Your task to perform on an android device: Search for vegetarian restaurants on Maps Image 0: 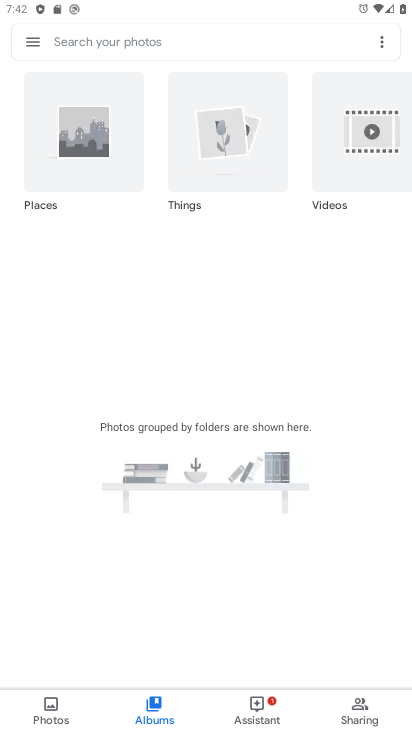
Step 0: press home button
Your task to perform on an android device: Search for vegetarian restaurants on Maps Image 1: 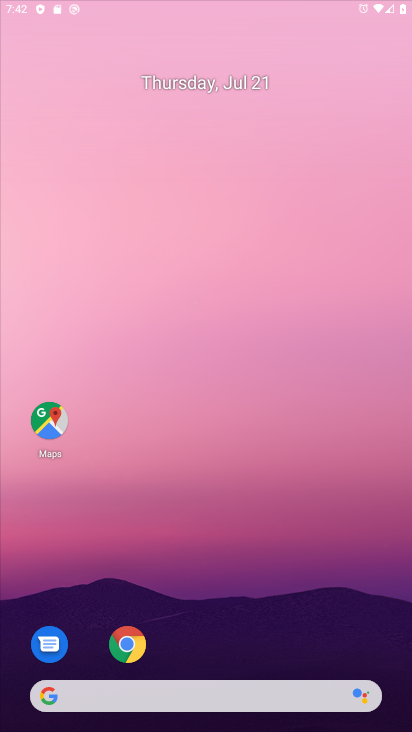
Step 1: drag from (210, 679) to (209, 361)
Your task to perform on an android device: Search for vegetarian restaurants on Maps Image 2: 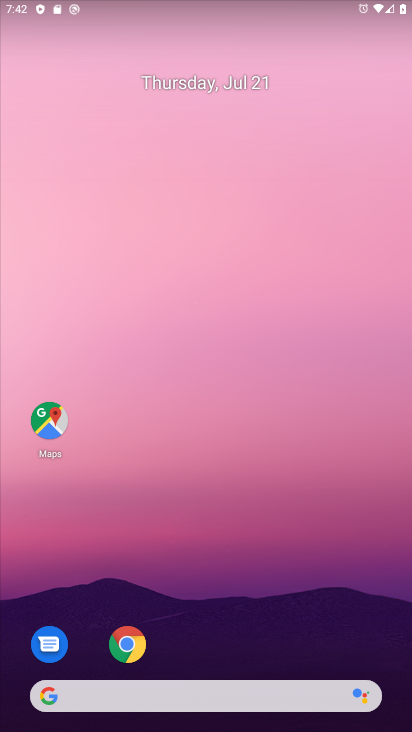
Step 2: click (61, 422)
Your task to perform on an android device: Search for vegetarian restaurants on Maps Image 3: 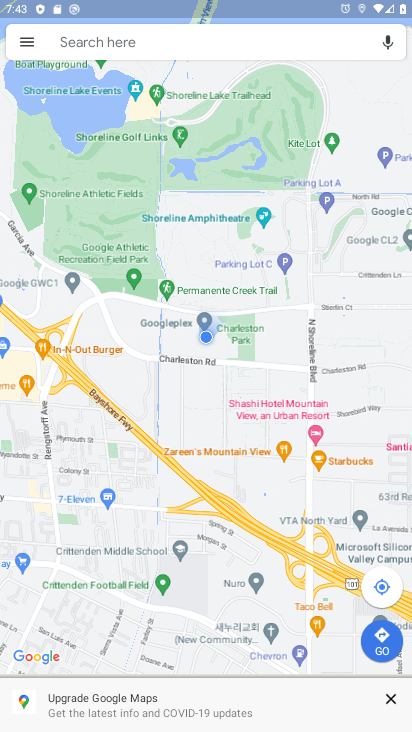
Step 3: click (239, 28)
Your task to perform on an android device: Search for vegetarian restaurants on Maps Image 4: 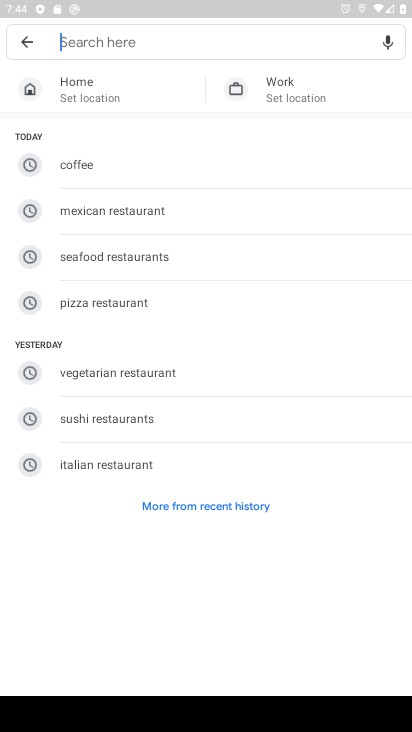
Step 4: click (116, 360)
Your task to perform on an android device: Search for vegetarian restaurants on Maps Image 5: 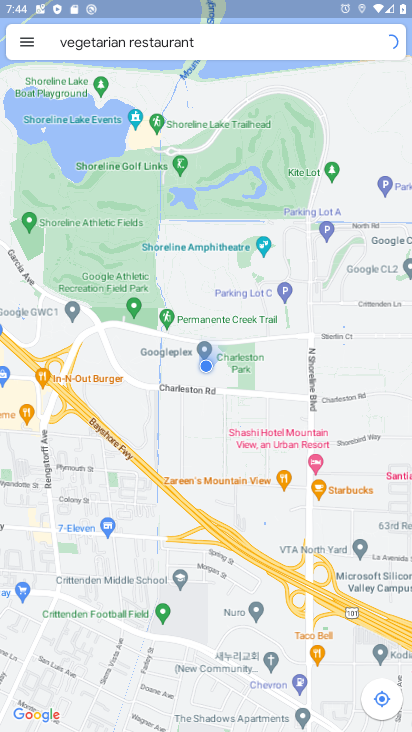
Step 5: task complete